Your task to perform on an android device: Do I have any events today? Image 0: 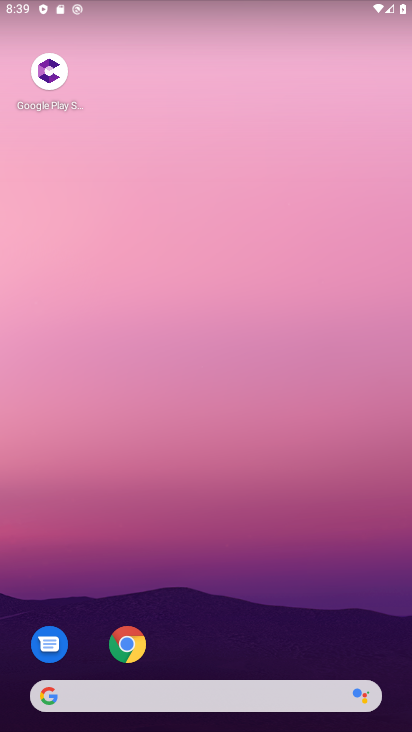
Step 0: drag from (294, 560) to (324, 57)
Your task to perform on an android device: Do I have any events today? Image 1: 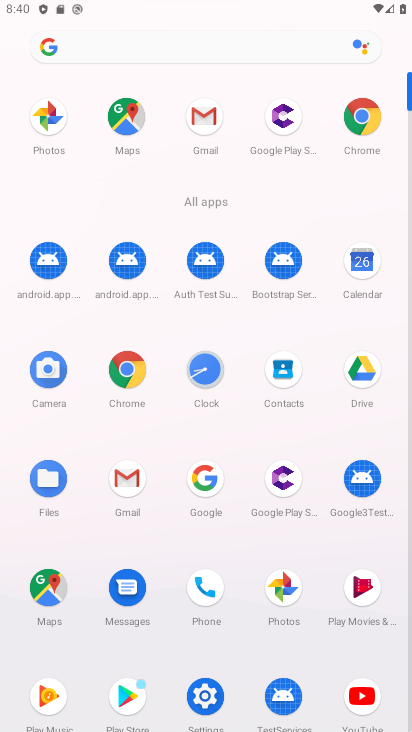
Step 1: click (367, 253)
Your task to perform on an android device: Do I have any events today? Image 2: 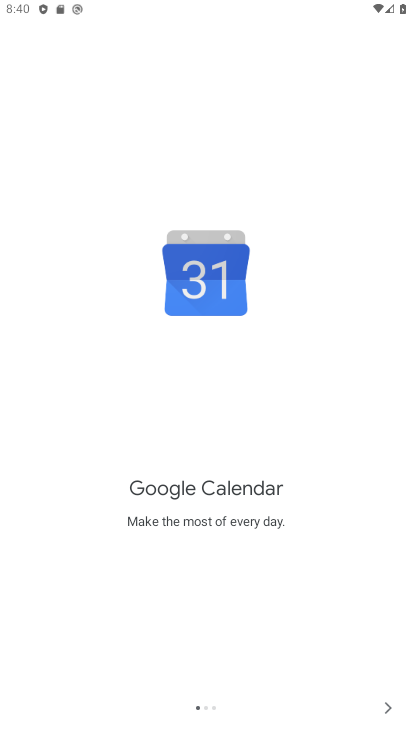
Step 2: click (391, 703)
Your task to perform on an android device: Do I have any events today? Image 3: 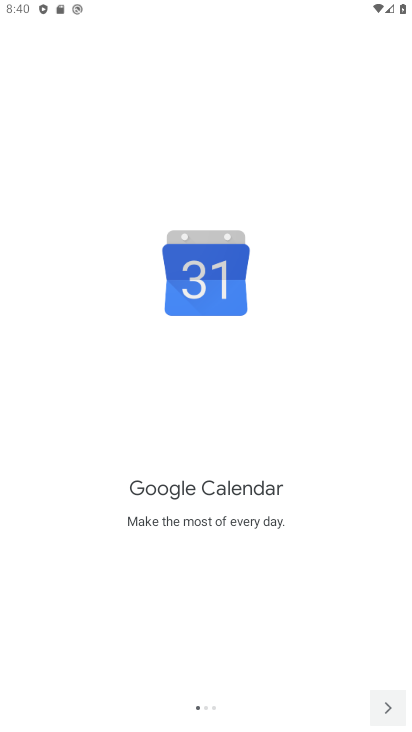
Step 3: click (391, 703)
Your task to perform on an android device: Do I have any events today? Image 4: 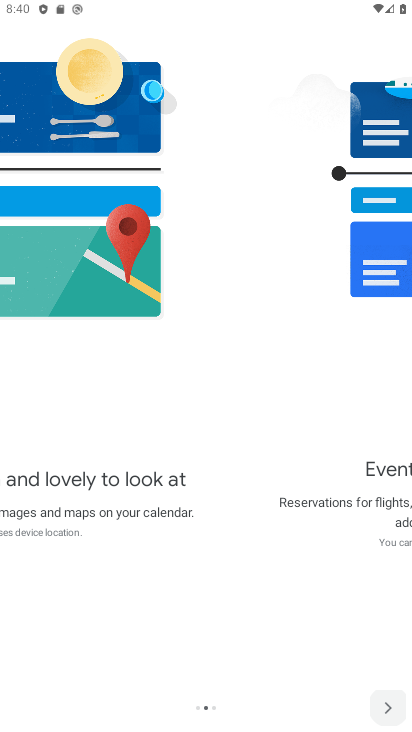
Step 4: click (391, 703)
Your task to perform on an android device: Do I have any events today? Image 5: 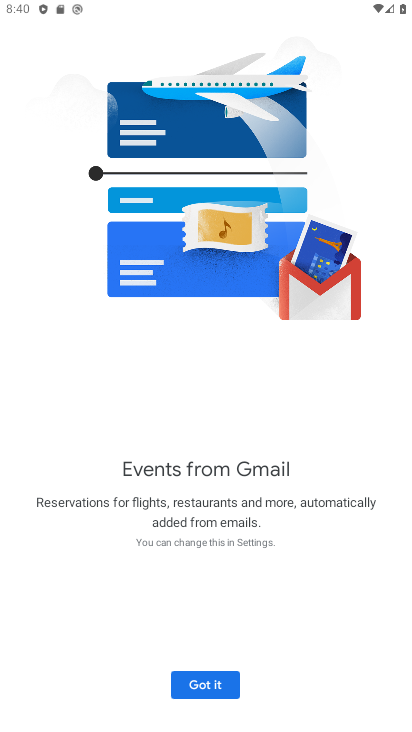
Step 5: click (211, 689)
Your task to perform on an android device: Do I have any events today? Image 6: 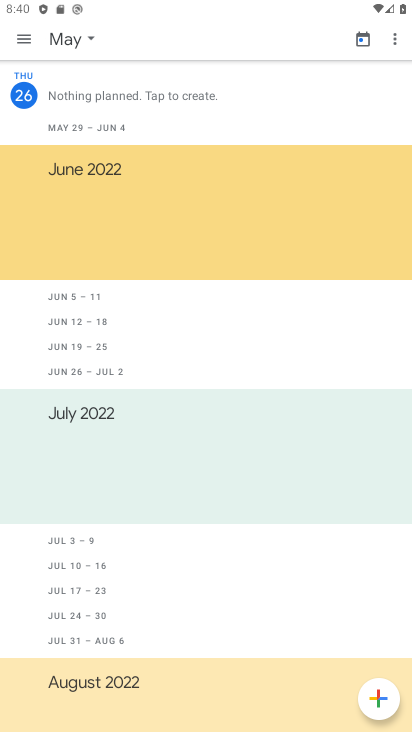
Step 6: click (31, 34)
Your task to perform on an android device: Do I have any events today? Image 7: 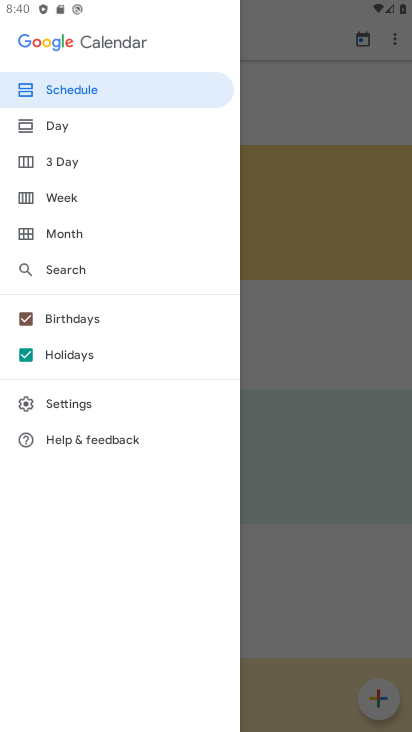
Step 7: click (121, 82)
Your task to perform on an android device: Do I have any events today? Image 8: 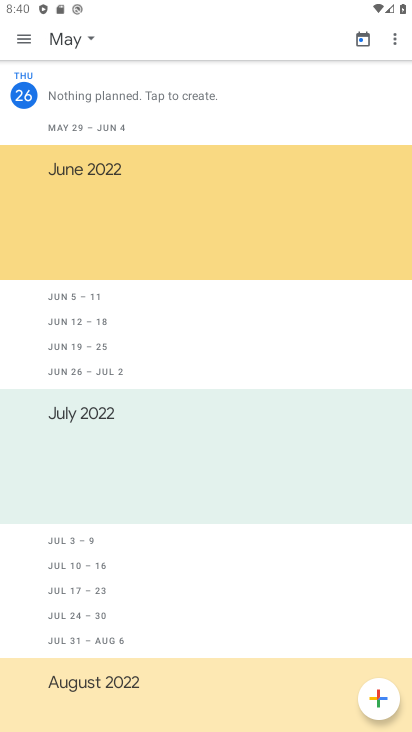
Step 8: click (63, 45)
Your task to perform on an android device: Do I have any events today? Image 9: 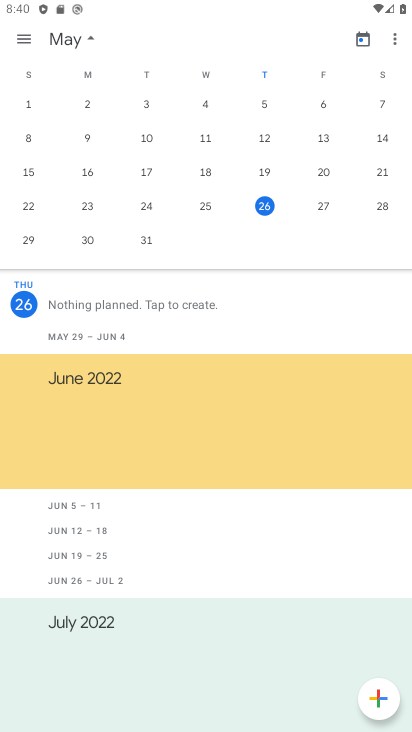
Step 9: click (331, 205)
Your task to perform on an android device: Do I have any events today? Image 10: 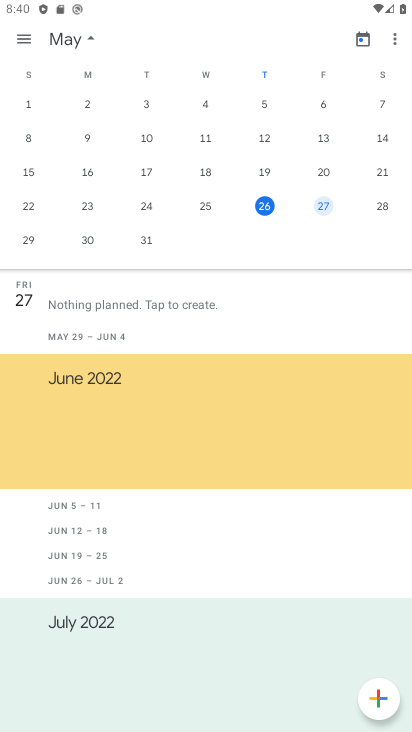
Step 10: task complete